Your task to perform on an android device: Open Google Maps and go to "Timeline" Image 0: 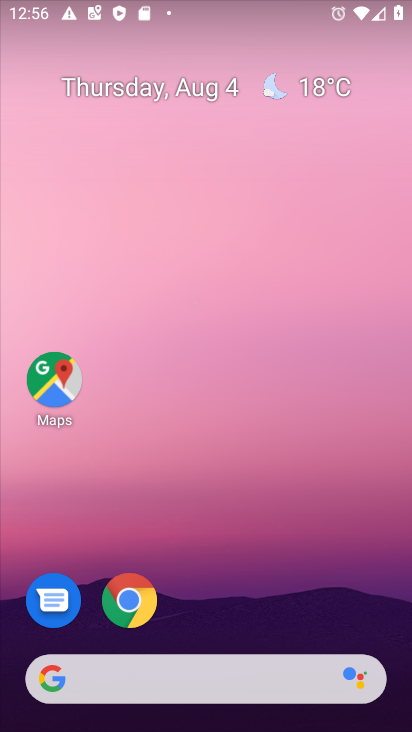
Step 0: press home button
Your task to perform on an android device: Open Google Maps and go to "Timeline" Image 1: 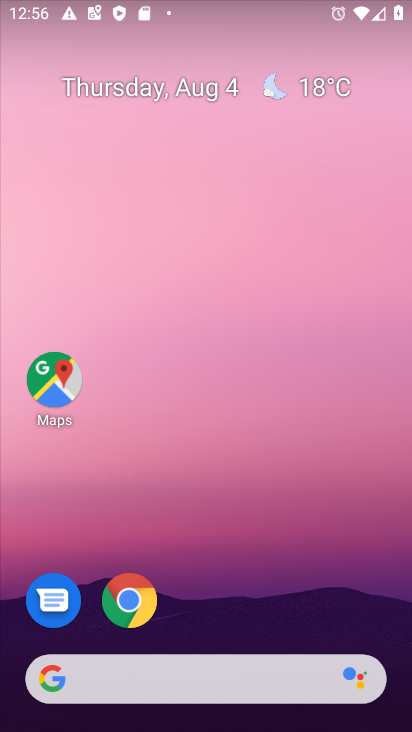
Step 1: click (49, 392)
Your task to perform on an android device: Open Google Maps and go to "Timeline" Image 2: 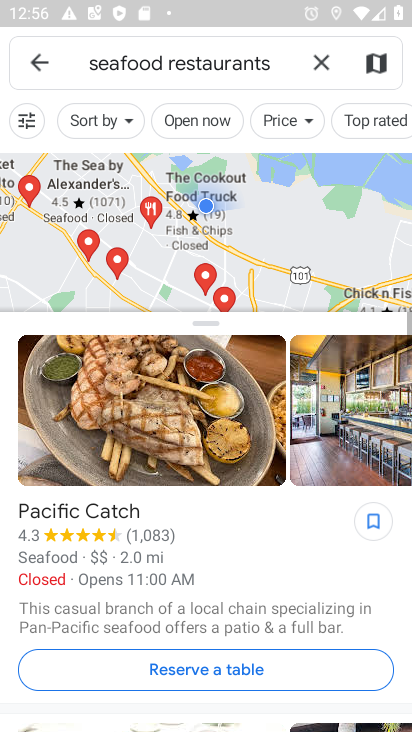
Step 2: click (28, 61)
Your task to perform on an android device: Open Google Maps and go to "Timeline" Image 3: 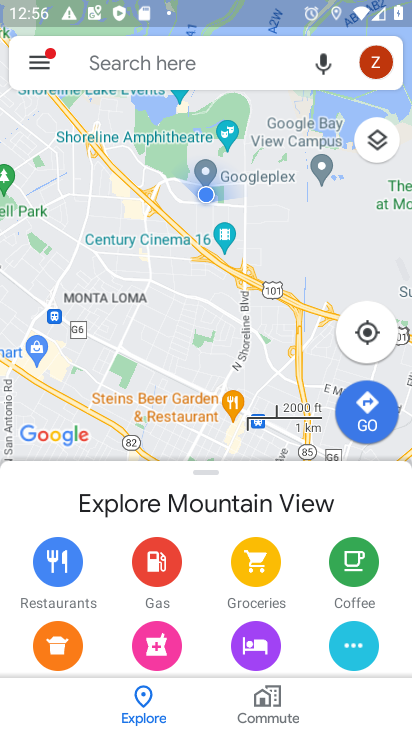
Step 3: click (43, 59)
Your task to perform on an android device: Open Google Maps and go to "Timeline" Image 4: 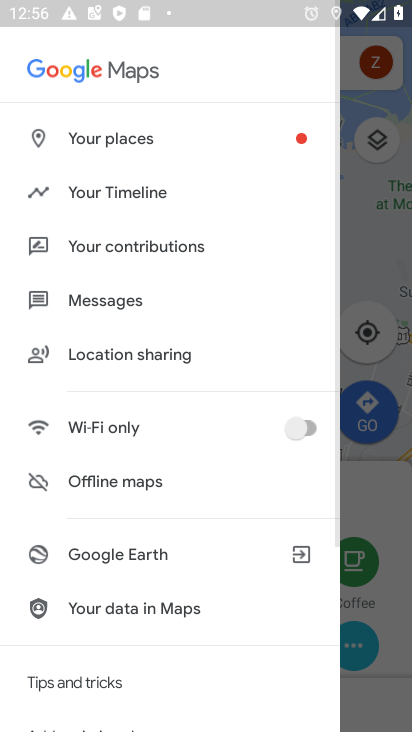
Step 4: click (142, 188)
Your task to perform on an android device: Open Google Maps and go to "Timeline" Image 5: 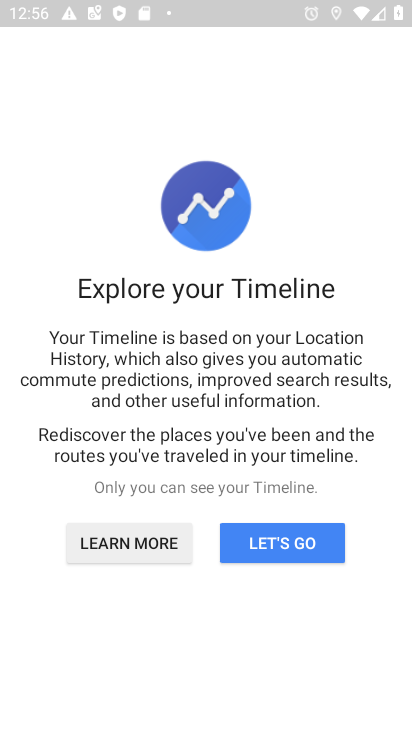
Step 5: click (302, 539)
Your task to perform on an android device: Open Google Maps and go to "Timeline" Image 6: 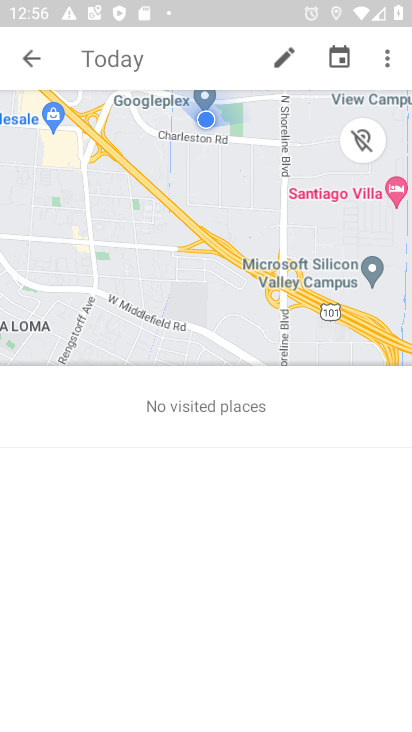
Step 6: task complete